Your task to perform on an android device: see sites visited before in the chrome app Image 0: 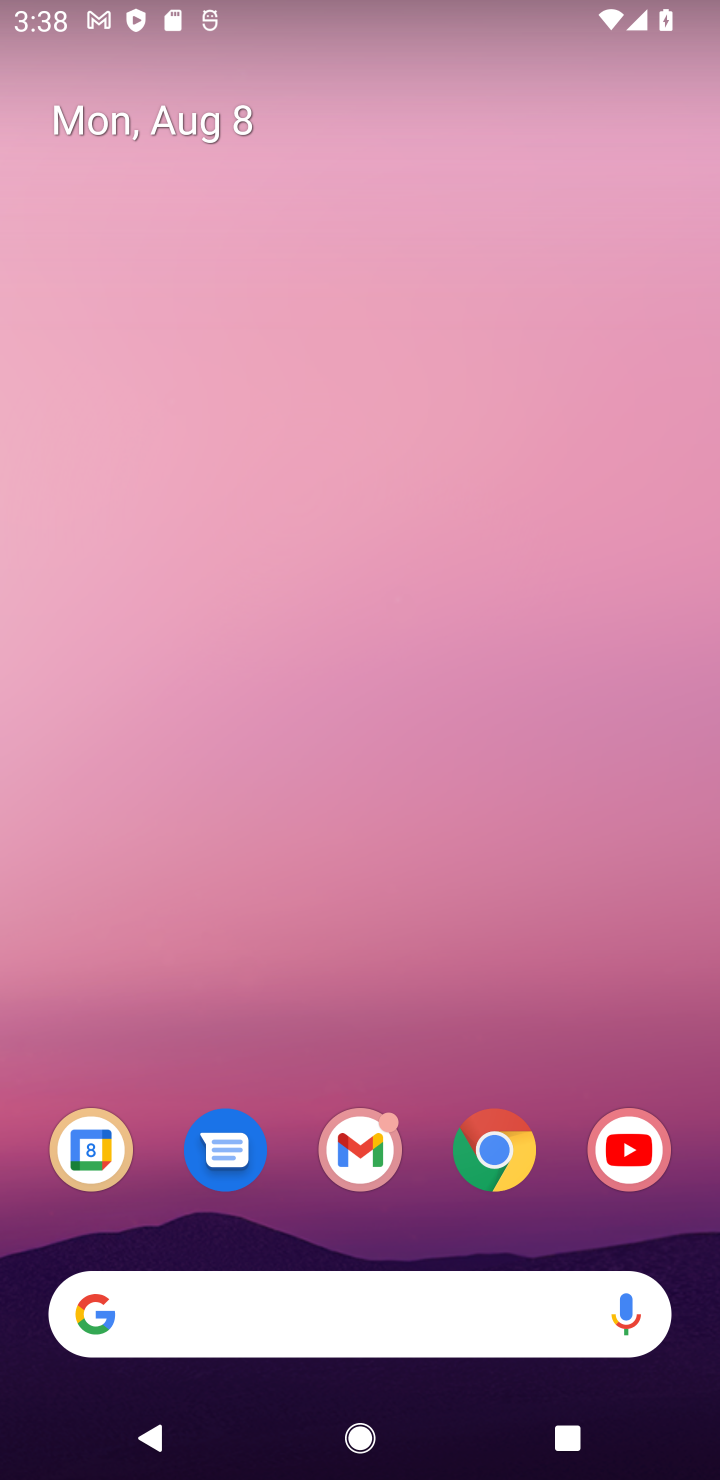
Step 0: click (498, 1172)
Your task to perform on an android device: see sites visited before in the chrome app Image 1: 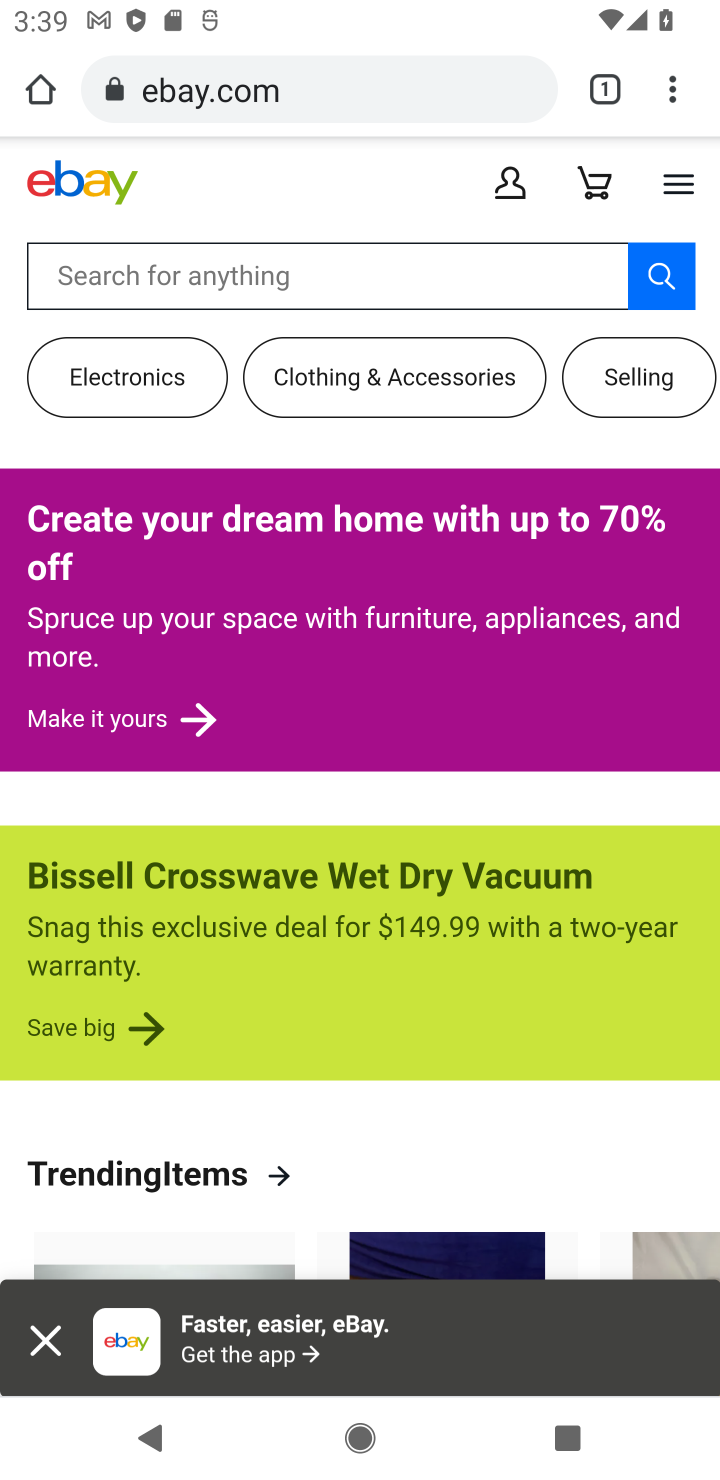
Step 1: task complete